Your task to perform on an android device: empty trash in the gmail app Image 0: 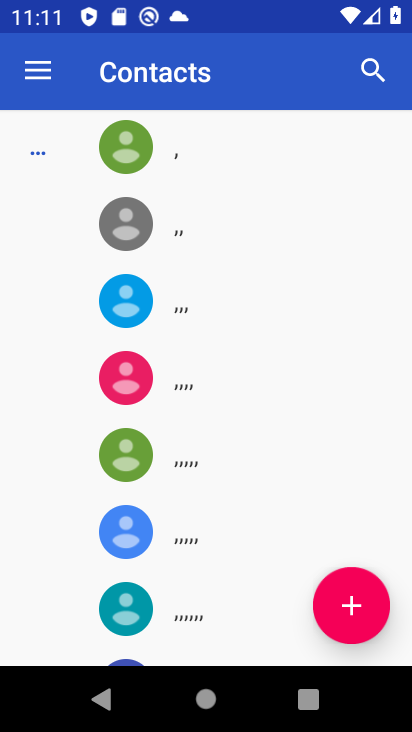
Step 0: press back button
Your task to perform on an android device: empty trash in the gmail app Image 1: 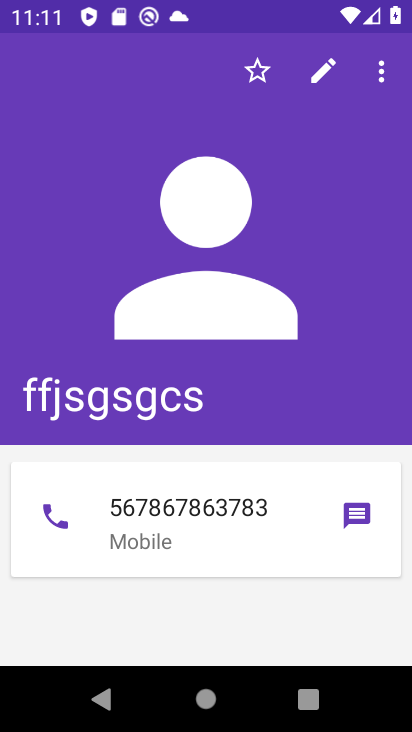
Step 1: press home button
Your task to perform on an android device: empty trash in the gmail app Image 2: 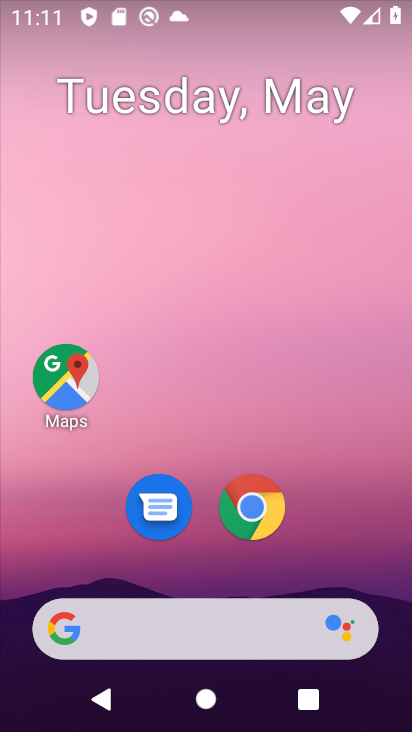
Step 2: drag from (285, 681) to (239, 105)
Your task to perform on an android device: empty trash in the gmail app Image 3: 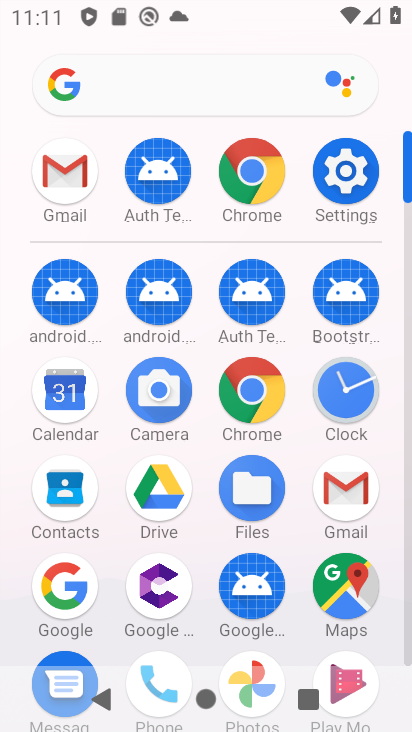
Step 3: click (344, 487)
Your task to perform on an android device: empty trash in the gmail app Image 4: 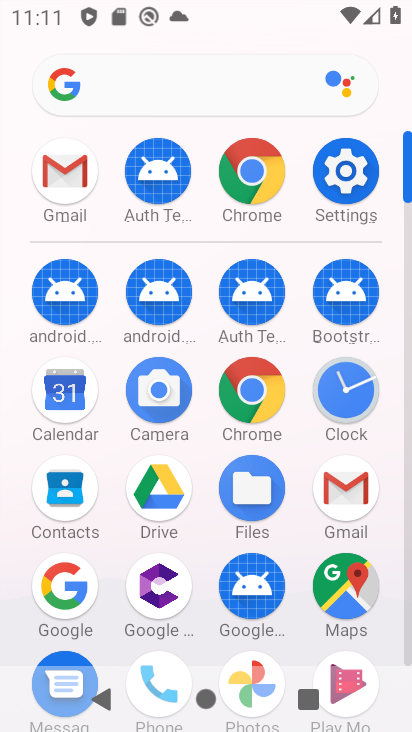
Step 4: click (344, 487)
Your task to perform on an android device: empty trash in the gmail app Image 5: 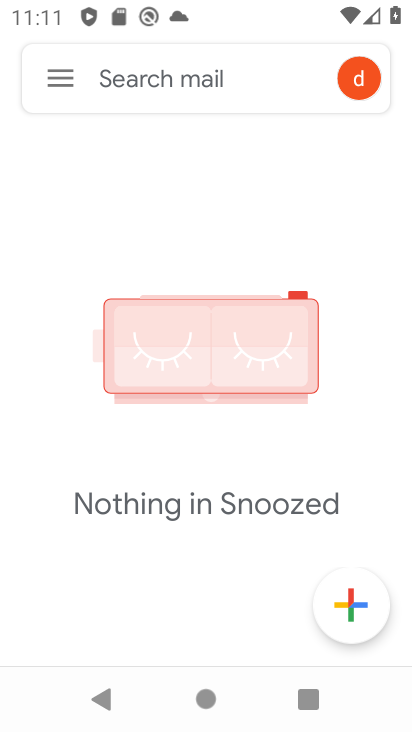
Step 5: press back button
Your task to perform on an android device: empty trash in the gmail app Image 6: 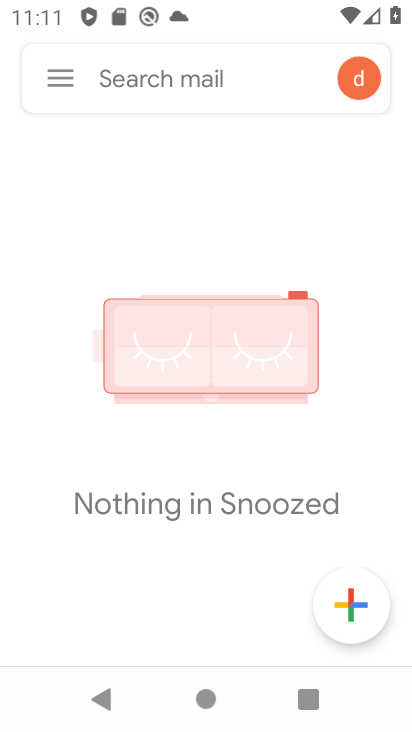
Step 6: press back button
Your task to perform on an android device: empty trash in the gmail app Image 7: 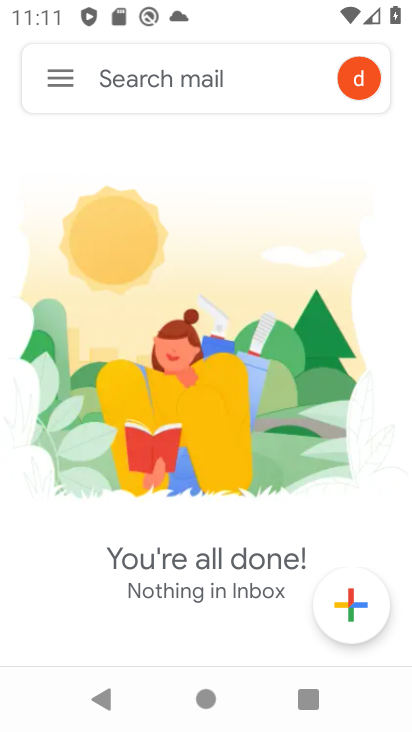
Step 7: press back button
Your task to perform on an android device: empty trash in the gmail app Image 8: 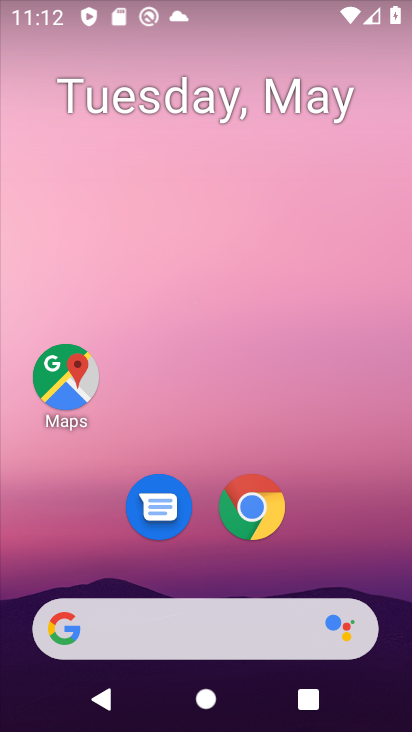
Step 8: drag from (278, 616) to (143, 179)
Your task to perform on an android device: empty trash in the gmail app Image 9: 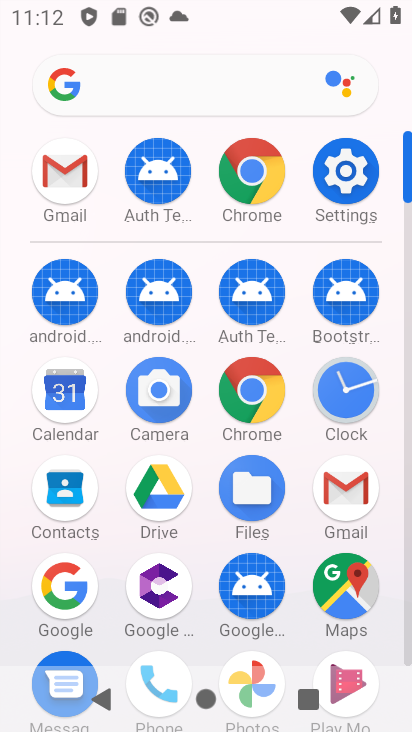
Step 9: click (350, 479)
Your task to perform on an android device: empty trash in the gmail app Image 10: 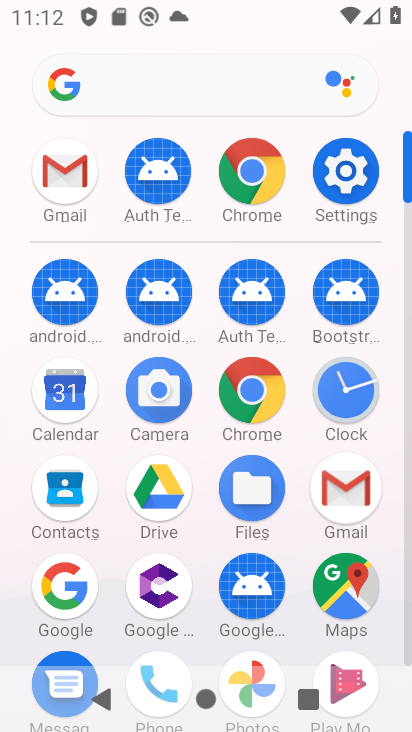
Step 10: click (351, 478)
Your task to perform on an android device: empty trash in the gmail app Image 11: 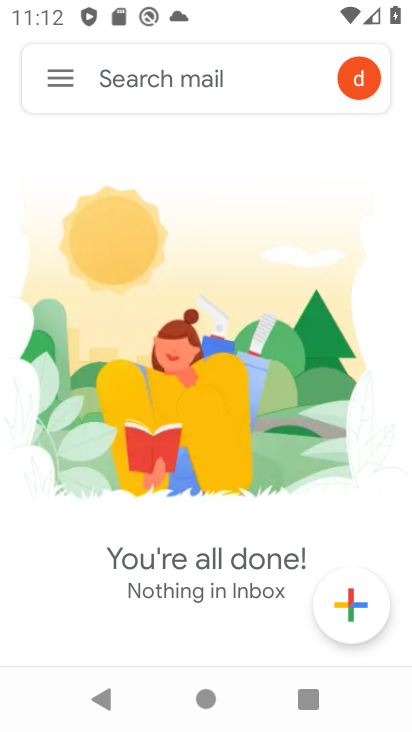
Step 11: click (67, 74)
Your task to perform on an android device: empty trash in the gmail app Image 12: 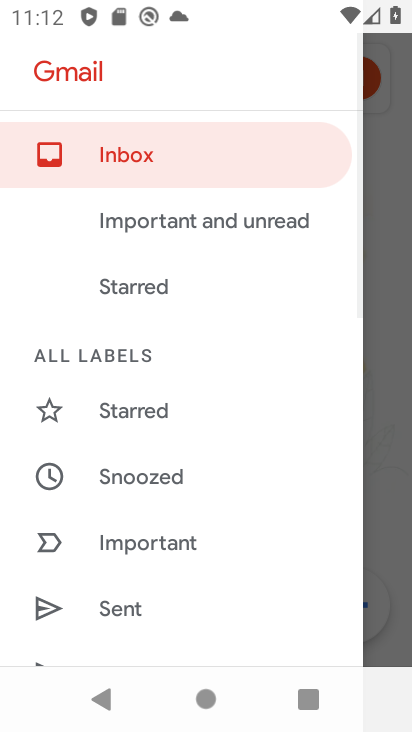
Step 12: click (166, 239)
Your task to perform on an android device: empty trash in the gmail app Image 13: 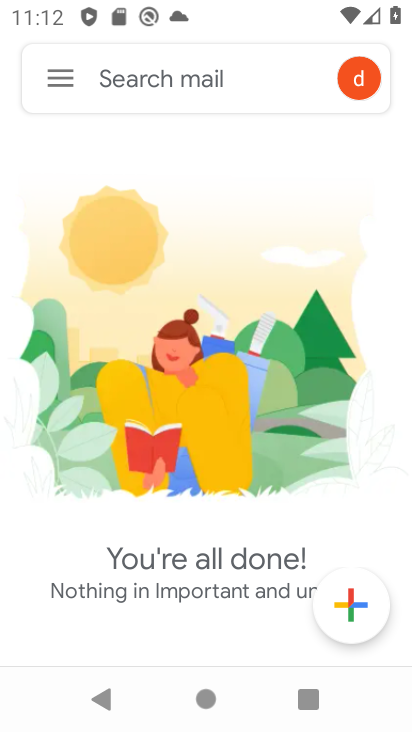
Step 13: click (63, 75)
Your task to perform on an android device: empty trash in the gmail app Image 14: 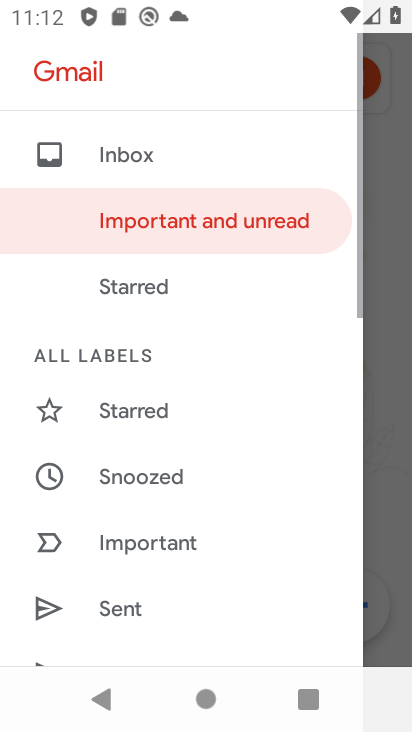
Step 14: drag from (120, 455) to (119, 111)
Your task to perform on an android device: empty trash in the gmail app Image 15: 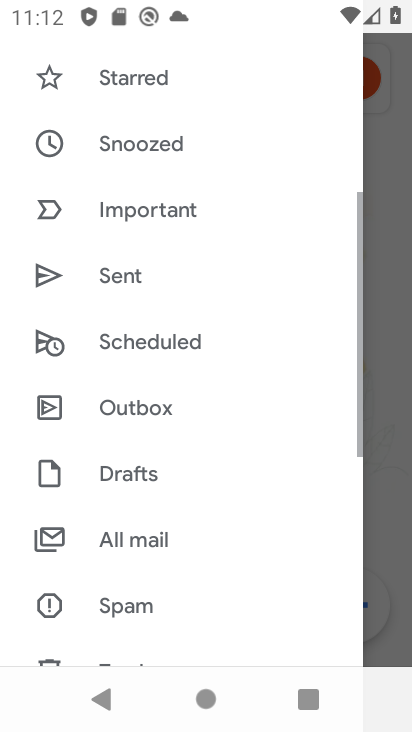
Step 15: drag from (152, 439) to (178, 151)
Your task to perform on an android device: empty trash in the gmail app Image 16: 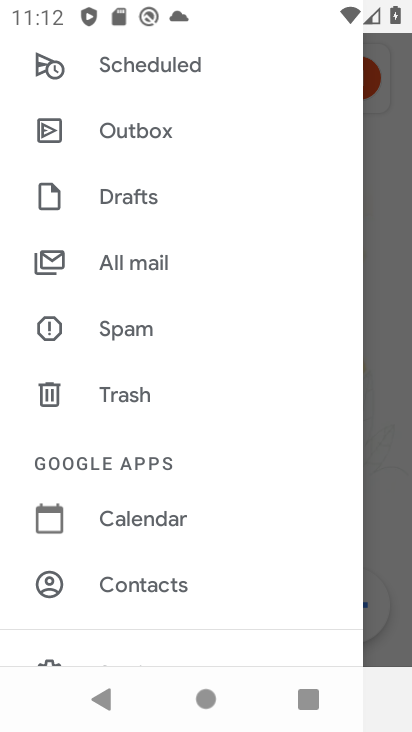
Step 16: click (126, 381)
Your task to perform on an android device: empty trash in the gmail app Image 17: 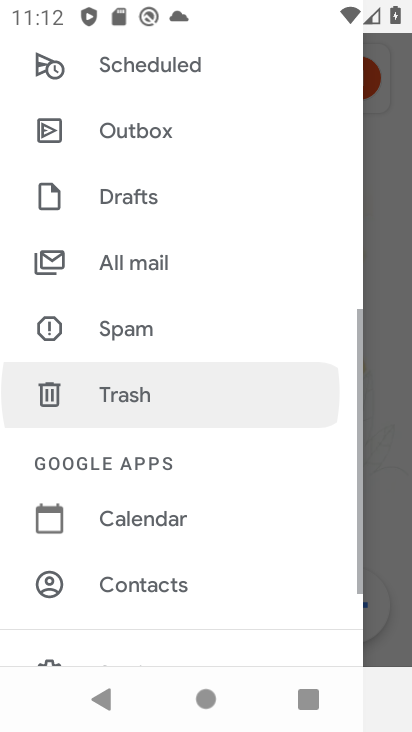
Step 17: click (126, 383)
Your task to perform on an android device: empty trash in the gmail app Image 18: 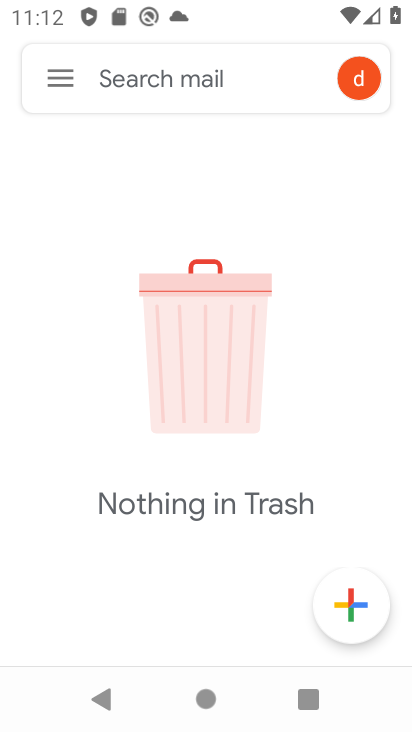
Step 18: task complete